Your task to perform on an android device: Open location settings Image 0: 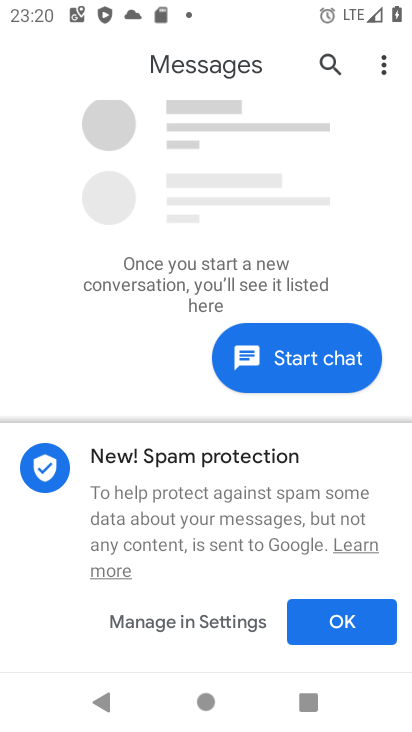
Step 0: press home button
Your task to perform on an android device: Open location settings Image 1: 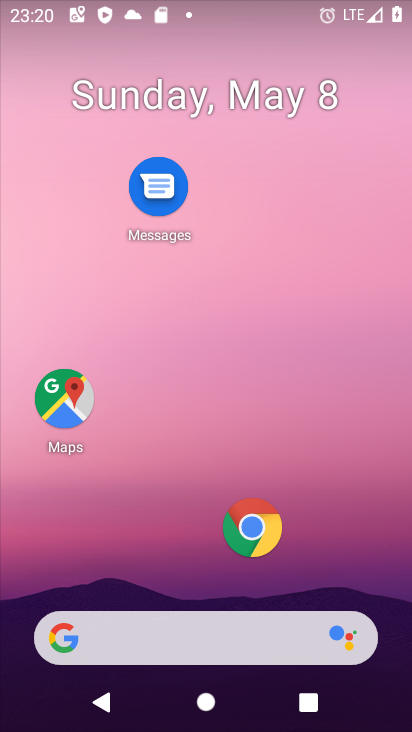
Step 1: drag from (182, 539) to (204, 68)
Your task to perform on an android device: Open location settings Image 2: 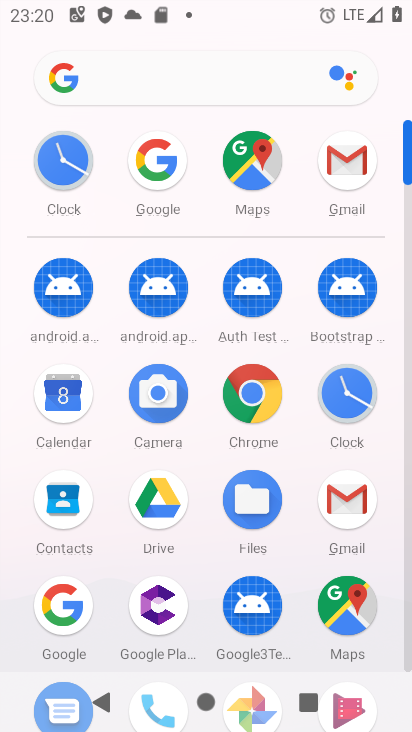
Step 2: drag from (102, 589) to (143, 246)
Your task to perform on an android device: Open location settings Image 3: 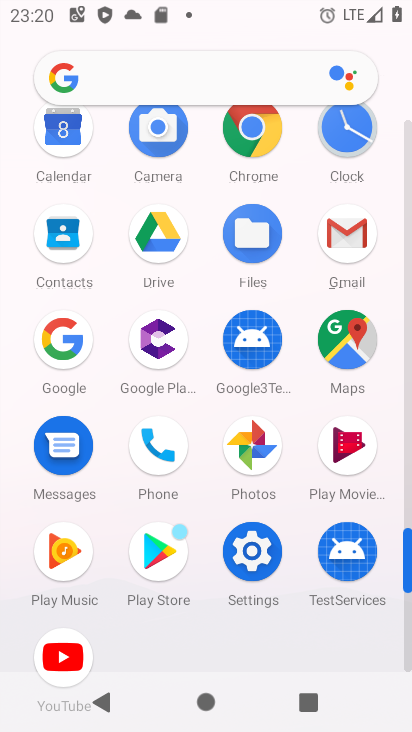
Step 3: click (251, 551)
Your task to perform on an android device: Open location settings Image 4: 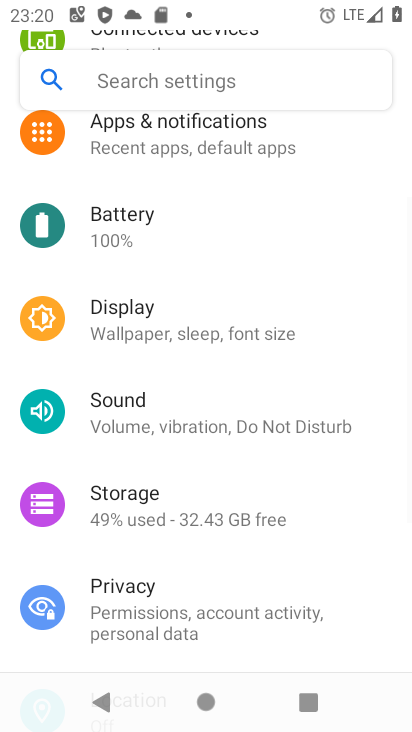
Step 4: drag from (215, 522) to (205, 85)
Your task to perform on an android device: Open location settings Image 5: 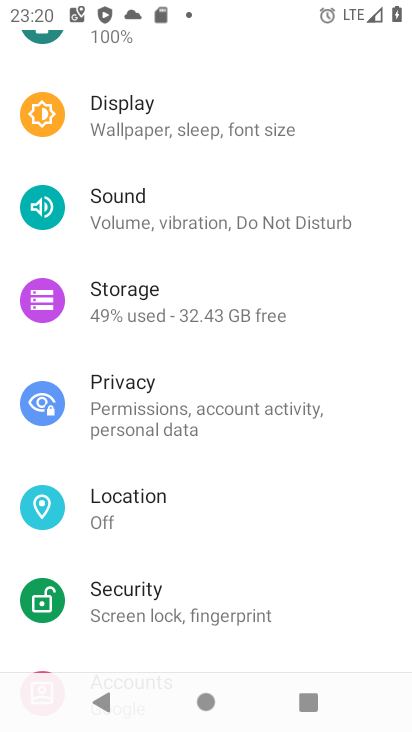
Step 5: click (129, 503)
Your task to perform on an android device: Open location settings Image 6: 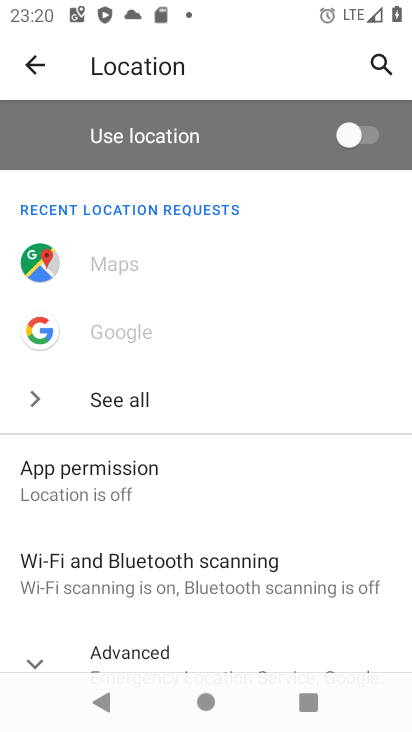
Step 6: task complete